Your task to perform on an android device: Open Chrome and go to settings Image 0: 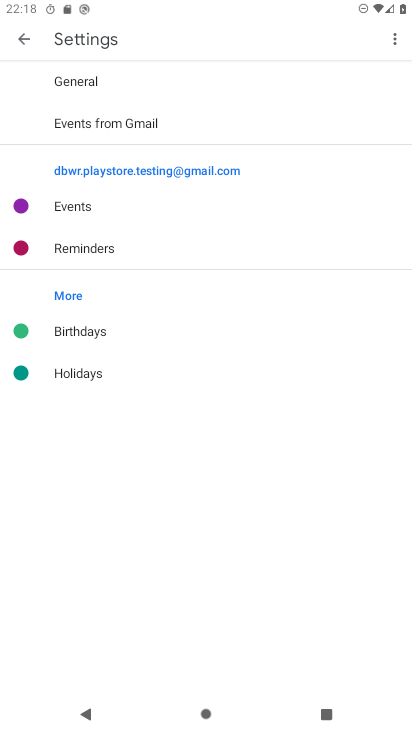
Step 0: press home button
Your task to perform on an android device: Open Chrome and go to settings Image 1: 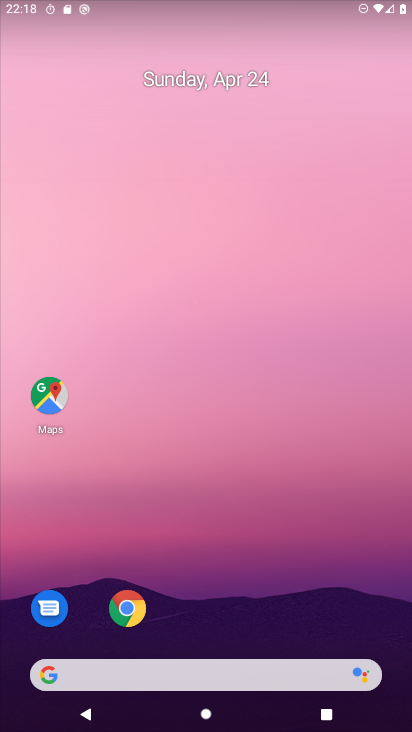
Step 1: click (127, 602)
Your task to perform on an android device: Open Chrome and go to settings Image 2: 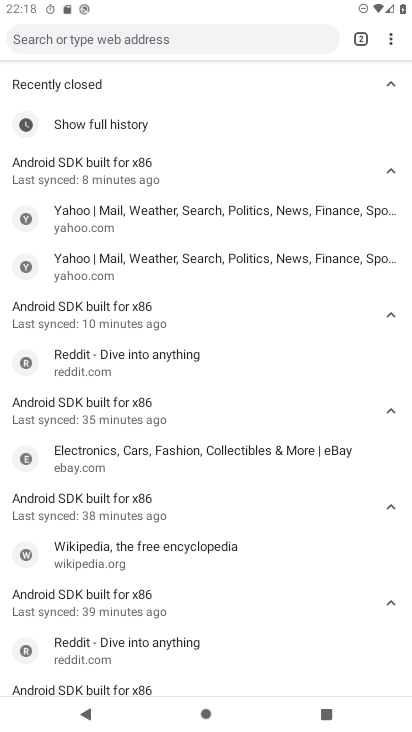
Step 2: click (391, 37)
Your task to perform on an android device: Open Chrome and go to settings Image 3: 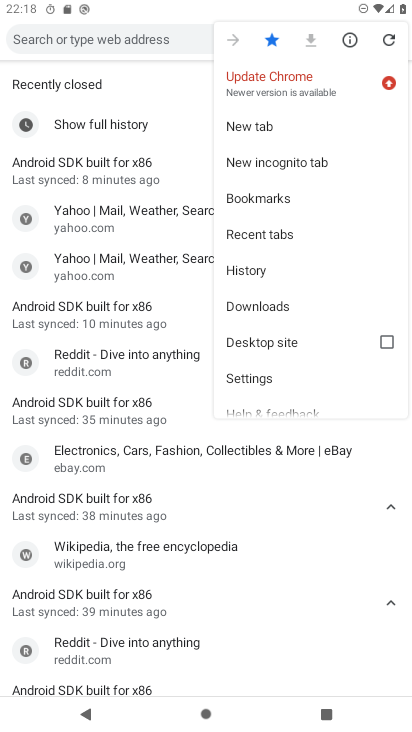
Step 3: click (286, 378)
Your task to perform on an android device: Open Chrome and go to settings Image 4: 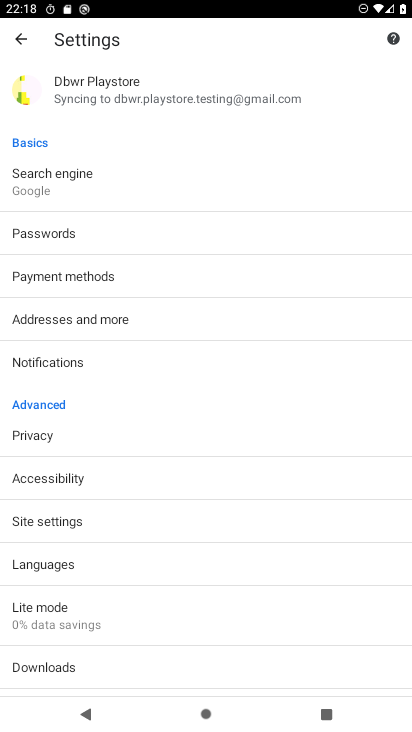
Step 4: task complete